Your task to perform on an android device: read, delete, or share a saved page in the chrome app Image 0: 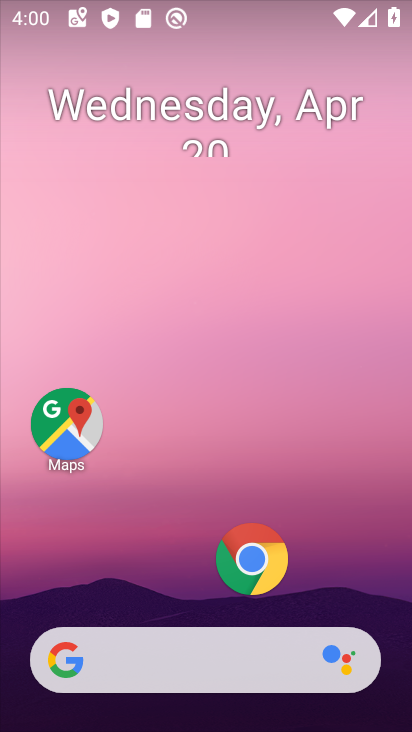
Step 0: press home button
Your task to perform on an android device: read, delete, or share a saved page in the chrome app Image 1: 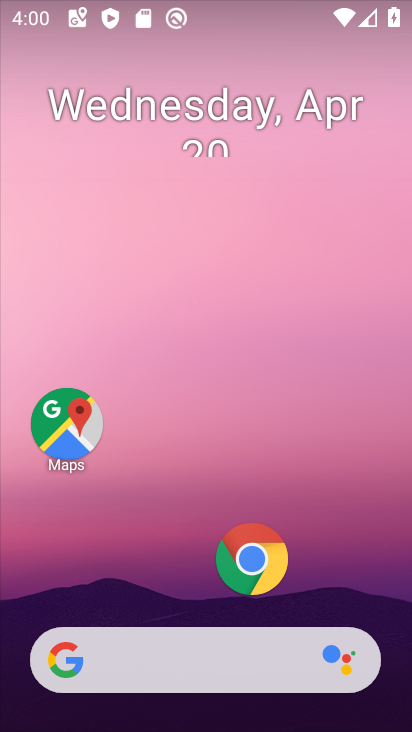
Step 1: click (245, 559)
Your task to perform on an android device: read, delete, or share a saved page in the chrome app Image 2: 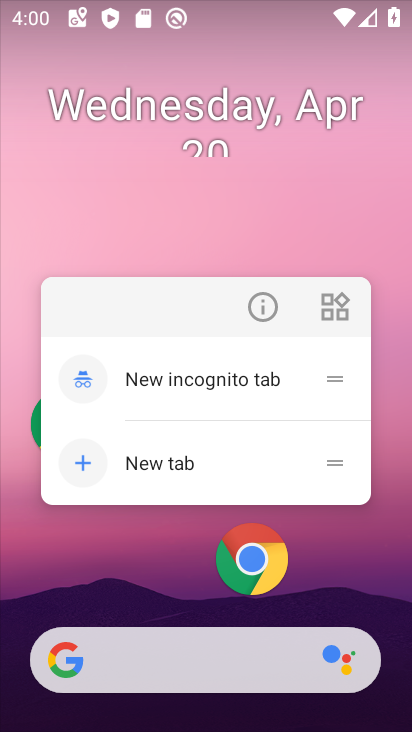
Step 2: click (179, 599)
Your task to perform on an android device: read, delete, or share a saved page in the chrome app Image 3: 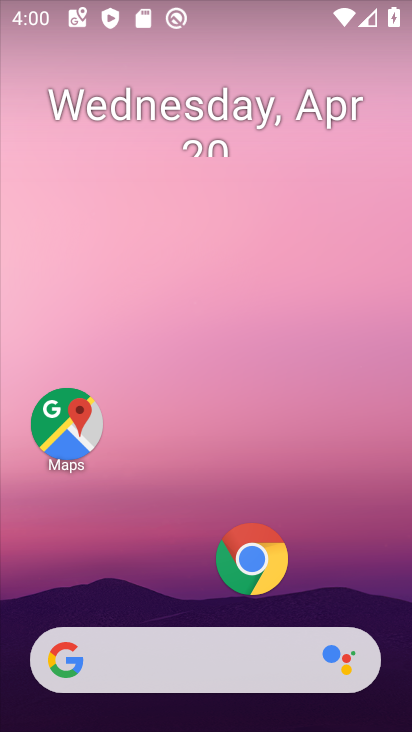
Step 3: click (257, 565)
Your task to perform on an android device: read, delete, or share a saved page in the chrome app Image 4: 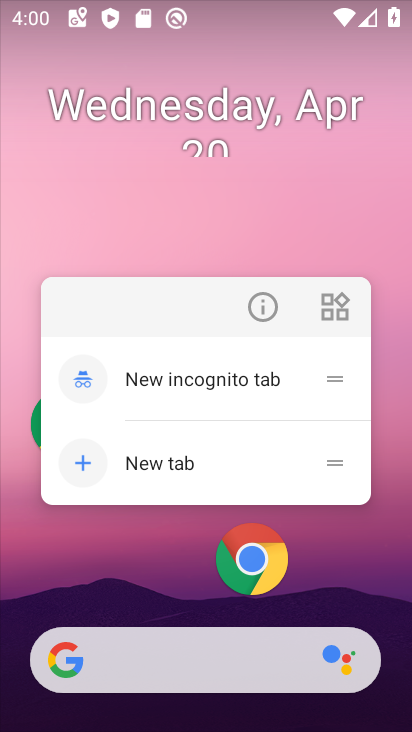
Step 4: click (279, 316)
Your task to perform on an android device: read, delete, or share a saved page in the chrome app Image 5: 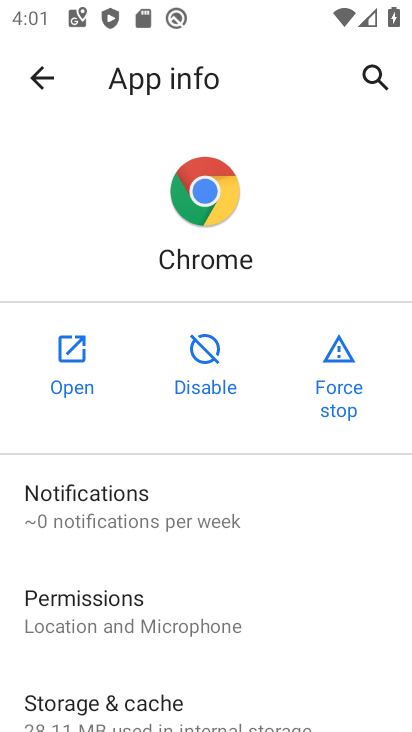
Step 5: drag from (188, 569) to (249, 435)
Your task to perform on an android device: read, delete, or share a saved page in the chrome app Image 6: 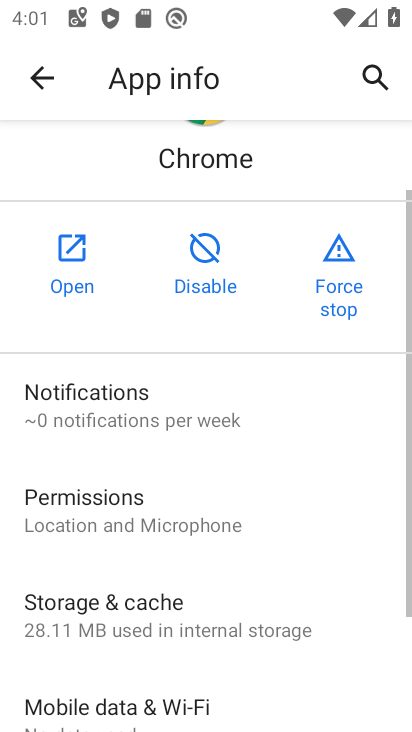
Step 6: click (79, 286)
Your task to perform on an android device: read, delete, or share a saved page in the chrome app Image 7: 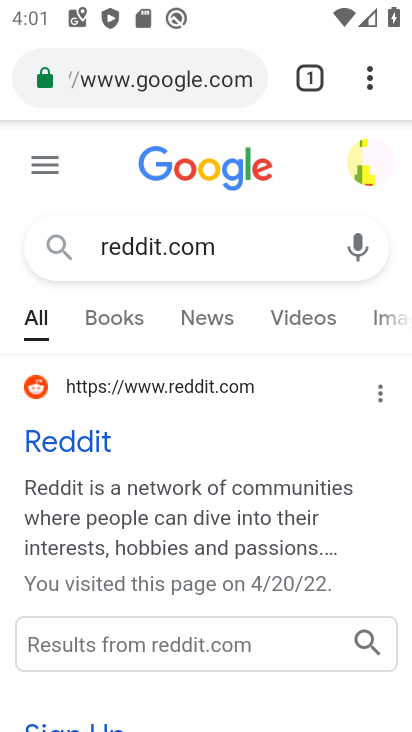
Step 7: task complete